Your task to perform on an android device: Open Google Maps and go to "Timeline" Image 0: 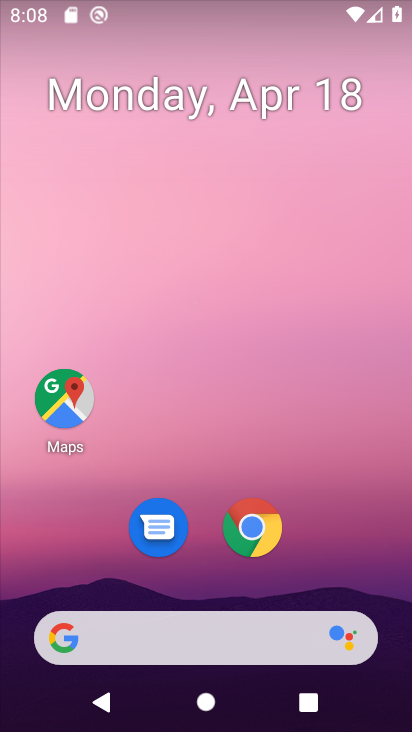
Step 0: click (65, 438)
Your task to perform on an android device: Open Google Maps and go to "Timeline" Image 1: 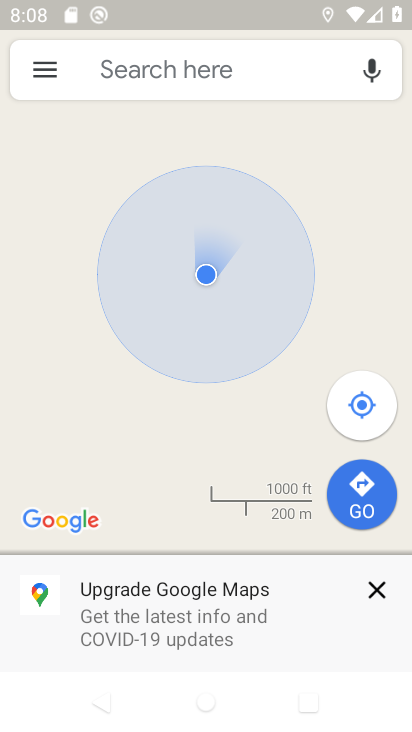
Step 1: click (48, 71)
Your task to perform on an android device: Open Google Maps and go to "Timeline" Image 2: 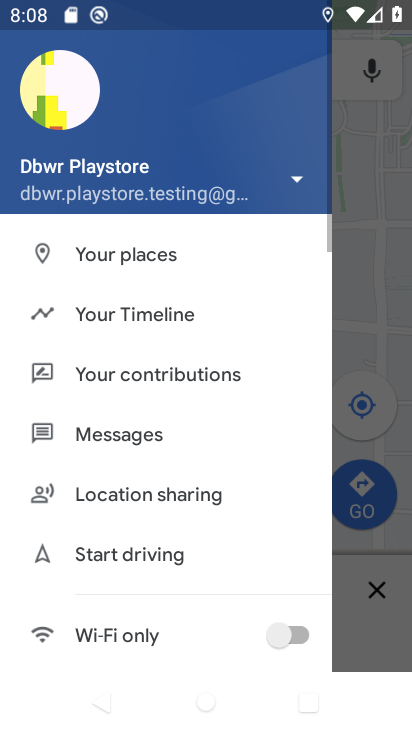
Step 2: click (117, 315)
Your task to perform on an android device: Open Google Maps and go to "Timeline" Image 3: 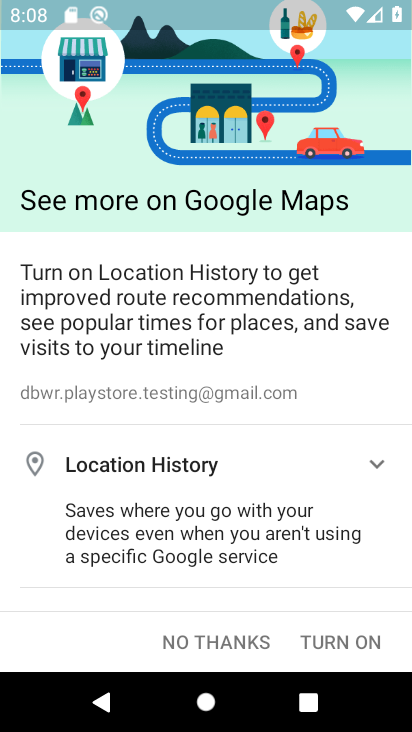
Step 3: click (344, 649)
Your task to perform on an android device: Open Google Maps and go to "Timeline" Image 4: 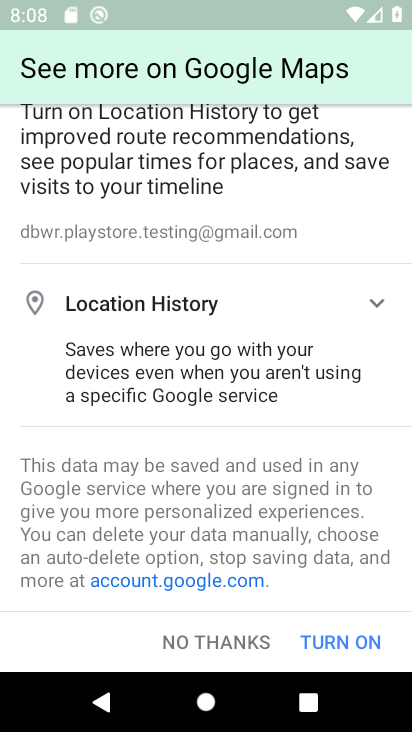
Step 4: click (344, 649)
Your task to perform on an android device: Open Google Maps and go to "Timeline" Image 5: 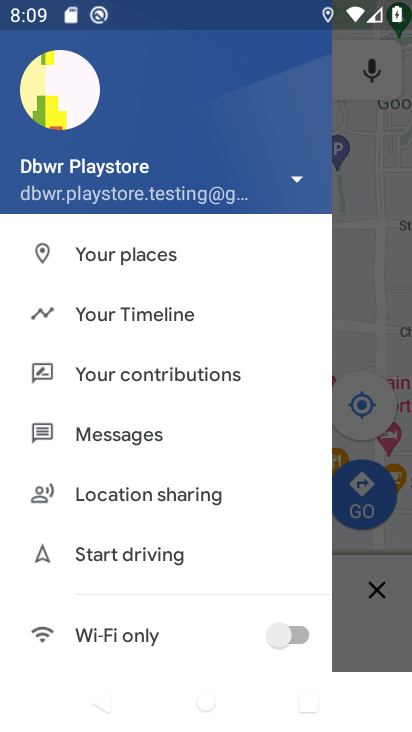
Step 5: click (147, 312)
Your task to perform on an android device: Open Google Maps and go to "Timeline" Image 6: 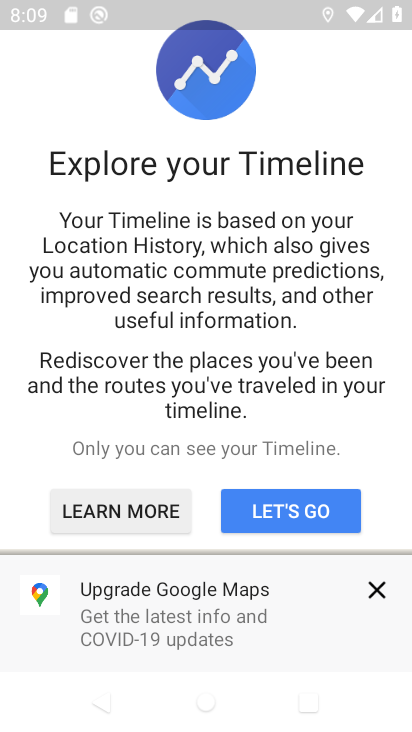
Step 6: click (302, 524)
Your task to perform on an android device: Open Google Maps and go to "Timeline" Image 7: 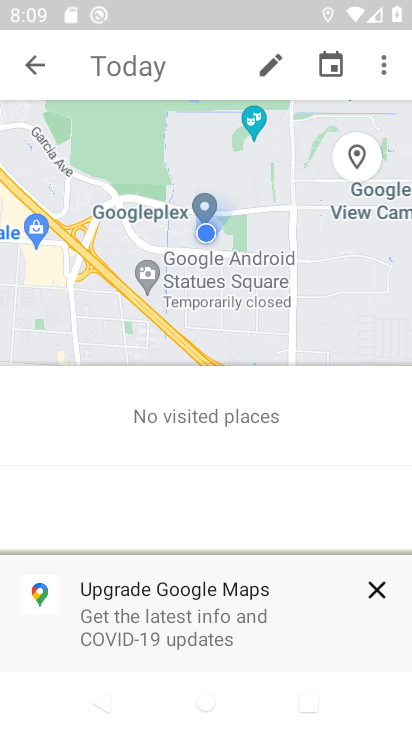
Step 7: click (384, 595)
Your task to perform on an android device: Open Google Maps and go to "Timeline" Image 8: 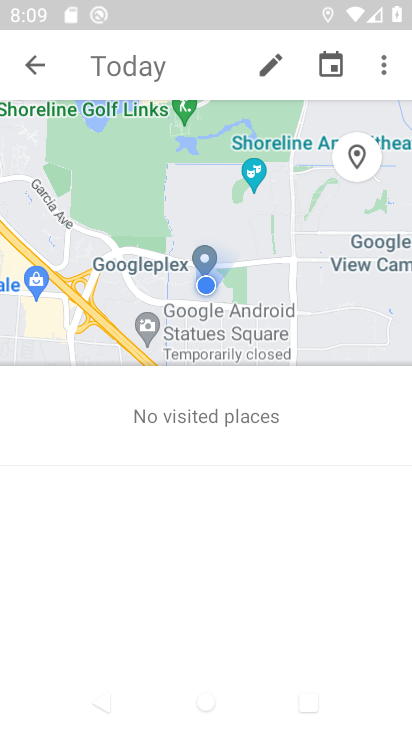
Step 8: task complete